Your task to perform on an android device: turn on wifi Image 0: 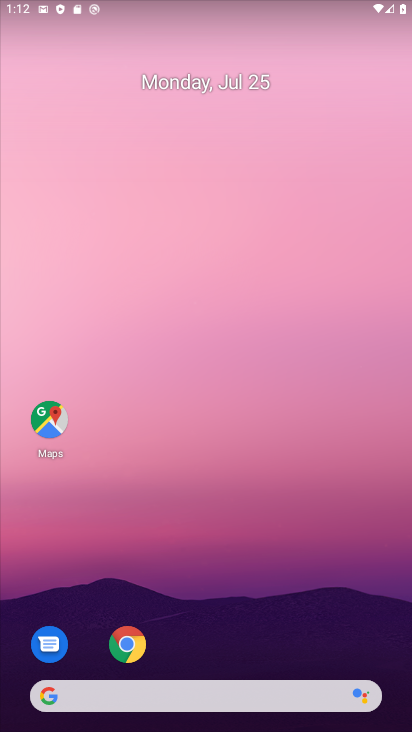
Step 0: drag from (296, 485) to (269, 103)
Your task to perform on an android device: turn on wifi Image 1: 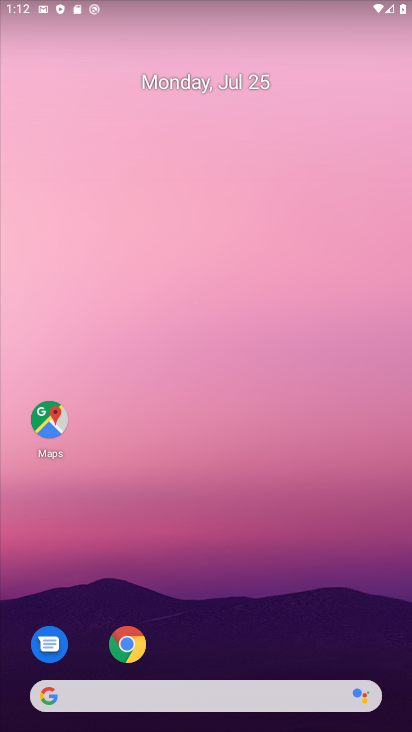
Step 1: drag from (248, 305) to (250, 136)
Your task to perform on an android device: turn on wifi Image 2: 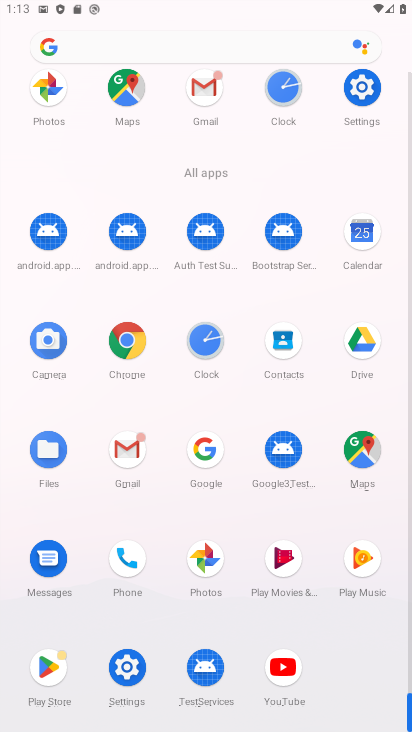
Step 2: click (365, 93)
Your task to perform on an android device: turn on wifi Image 3: 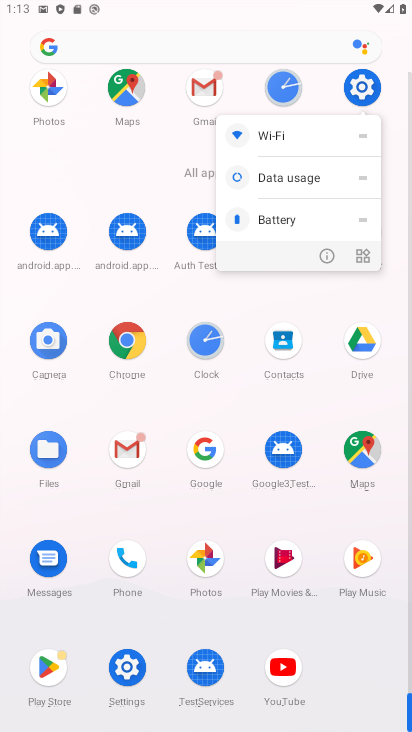
Step 3: click (362, 85)
Your task to perform on an android device: turn on wifi Image 4: 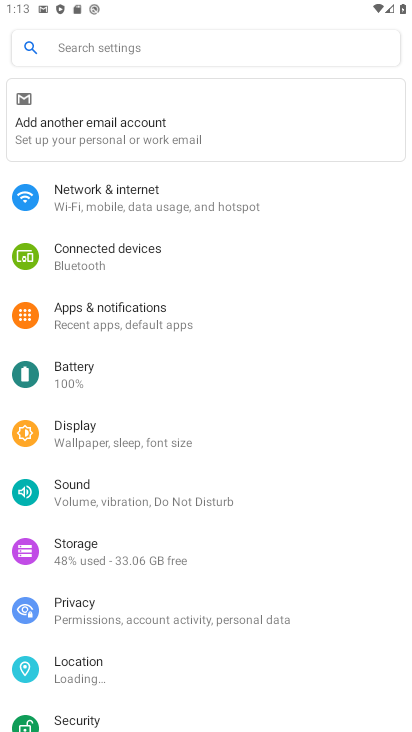
Step 4: click (122, 201)
Your task to perform on an android device: turn on wifi Image 5: 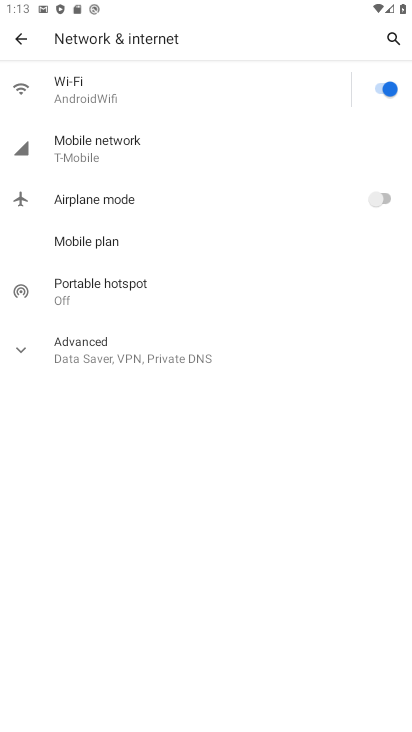
Step 5: task complete